Your task to perform on an android device: change notification settings in the gmail app Image 0: 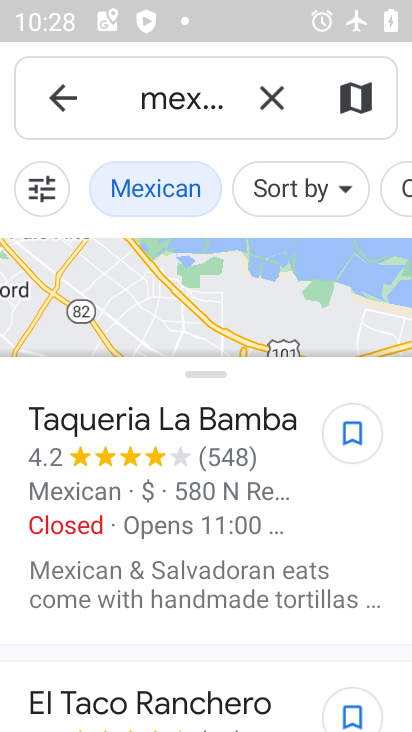
Step 0: press home button
Your task to perform on an android device: change notification settings in the gmail app Image 1: 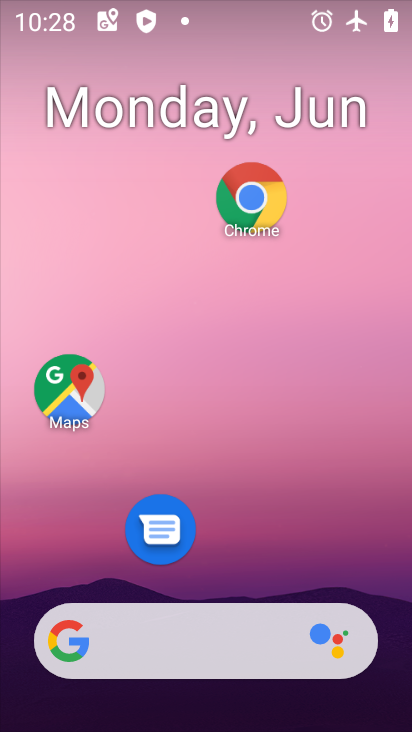
Step 1: drag from (252, 570) to (270, 210)
Your task to perform on an android device: change notification settings in the gmail app Image 2: 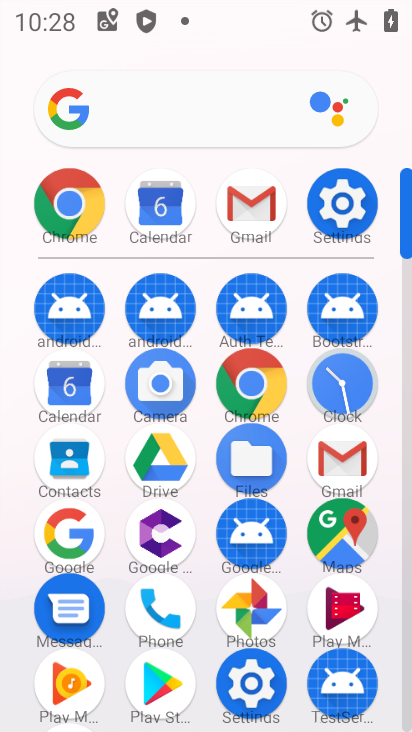
Step 2: click (270, 209)
Your task to perform on an android device: change notification settings in the gmail app Image 3: 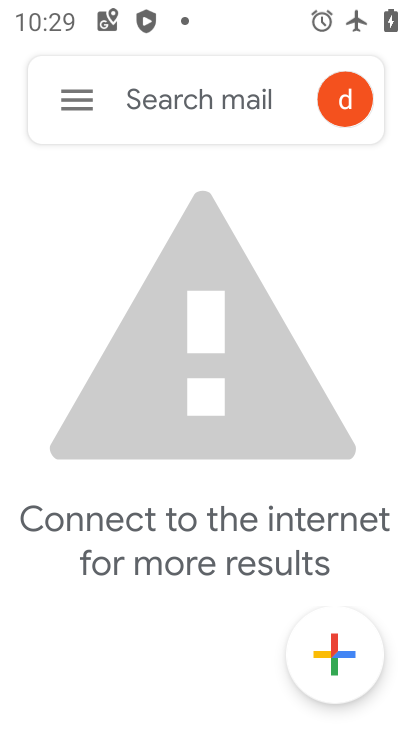
Step 3: click (79, 111)
Your task to perform on an android device: change notification settings in the gmail app Image 4: 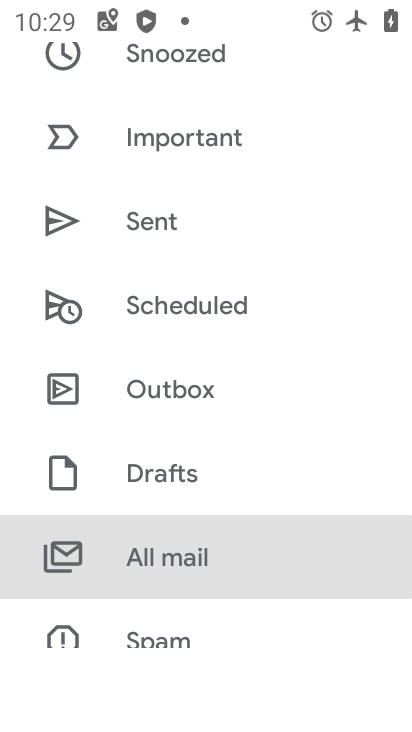
Step 4: drag from (210, 587) to (269, 229)
Your task to perform on an android device: change notification settings in the gmail app Image 5: 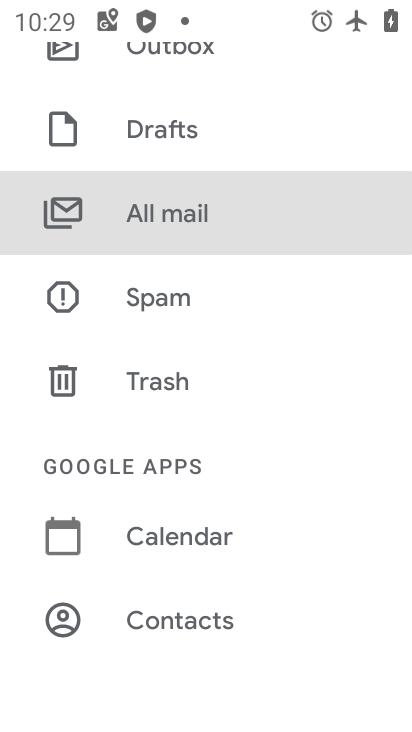
Step 5: drag from (234, 576) to (262, 219)
Your task to perform on an android device: change notification settings in the gmail app Image 6: 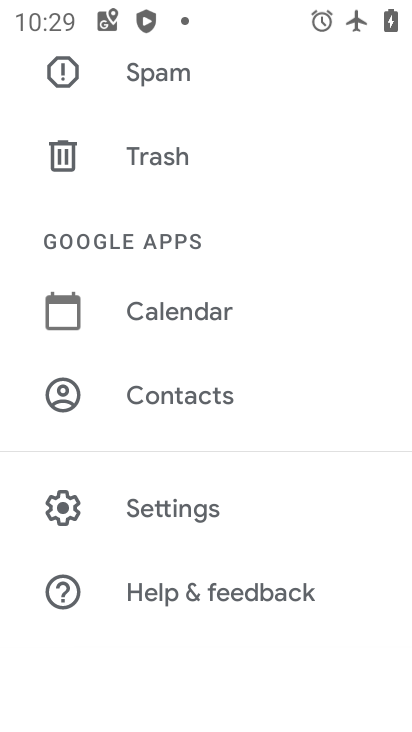
Step 6: click (201, 495)
Your task to perform on an android device: change notification settings in the gmail app Image 7: 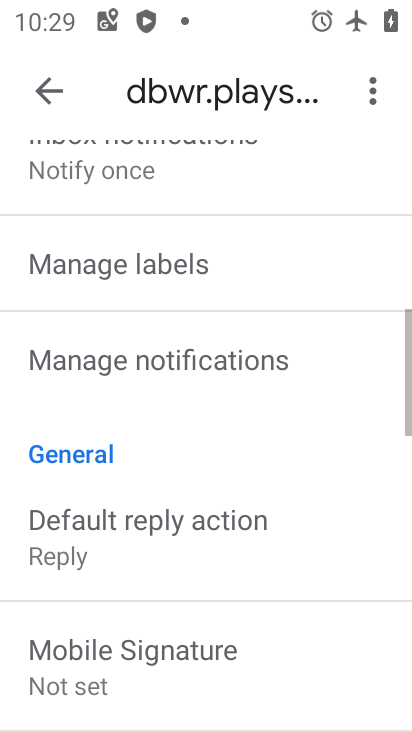
Step 7: drag from (230, 583) to (242, 454)
Your task to perform on an android device: change notification settings in the gmail app Image 8: 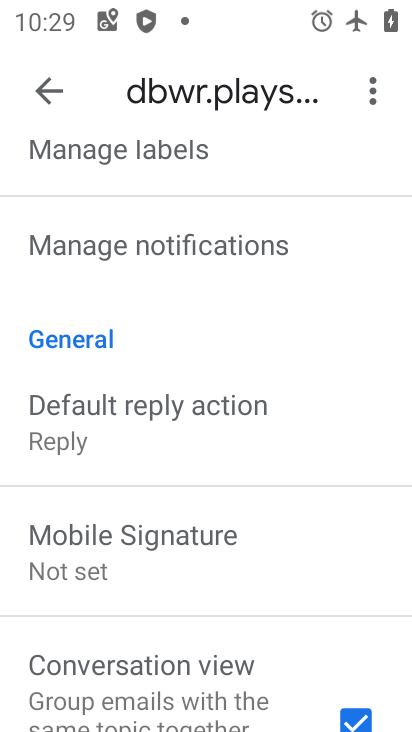
Step 8: click (247, 245)
Your task to perform on an android device: change notification settings in the gmail app Image 9: 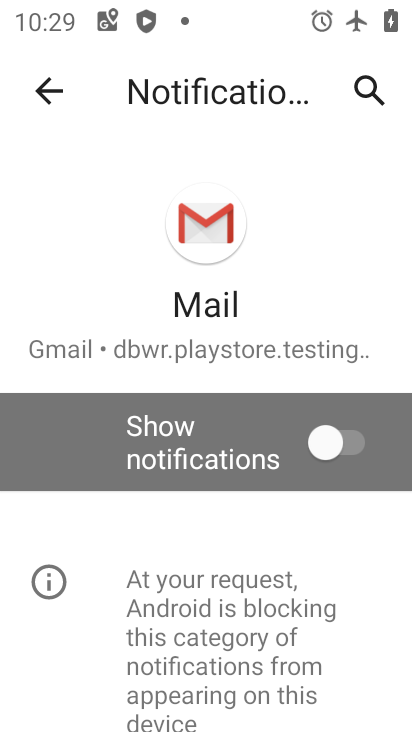
Step 9: click (349, 440)
Your task to perform on an android device: change notification settings in the gmail app Image 10: 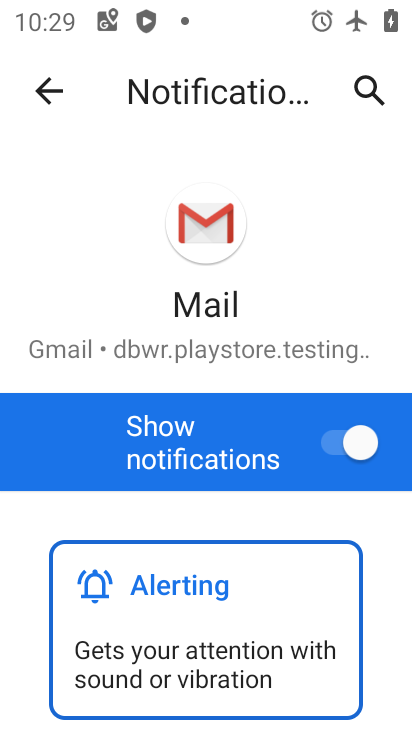
Step 10: task complete